Your task to perform on an android device: Search for Mexican restaurants on Maps Image 0: 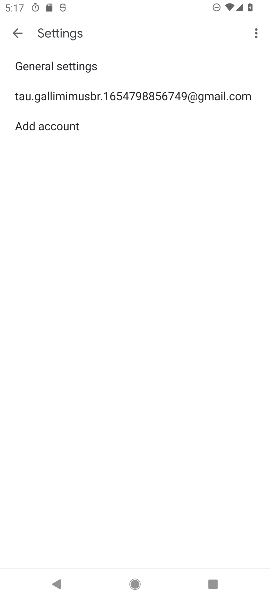
Step 0: press home button
Your task to perform on an android device: Search for Mexican restaurants on Maps Image 1: 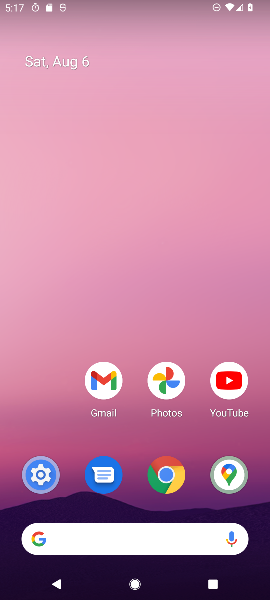
Step 1: click (237, 479)
Your task to perform on an android device: Search for Mexican restaurants on Maps Image 2: 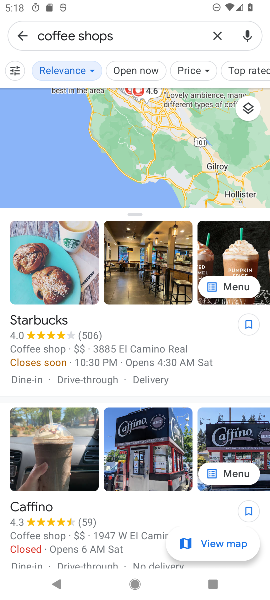
Step 2: click (21, 38)
Your task to perform on an android device: Search for Mexican restaurants on Maps Image 3: 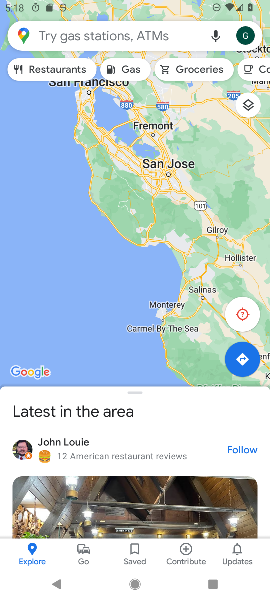
Step 3: click (65, 31)
Your task to perform on an android device: Search for Mexican restaurants on Maps Image 4: 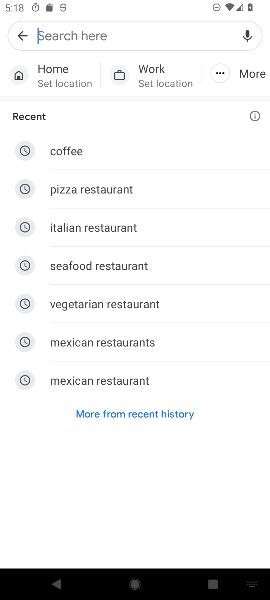
Step 4: click (116, 343)
Your task to perform on an android device: Search for Mexican restaurants on Maps Image 5: 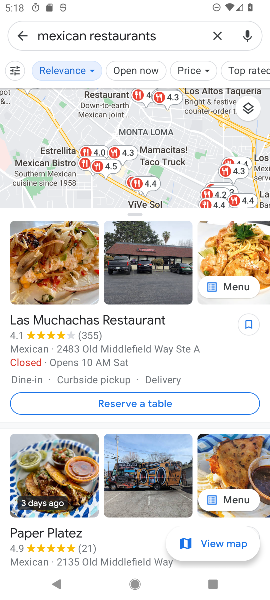
Step 5: task complete